Your task to perform on an android device: Go to privacy settings Image 0: 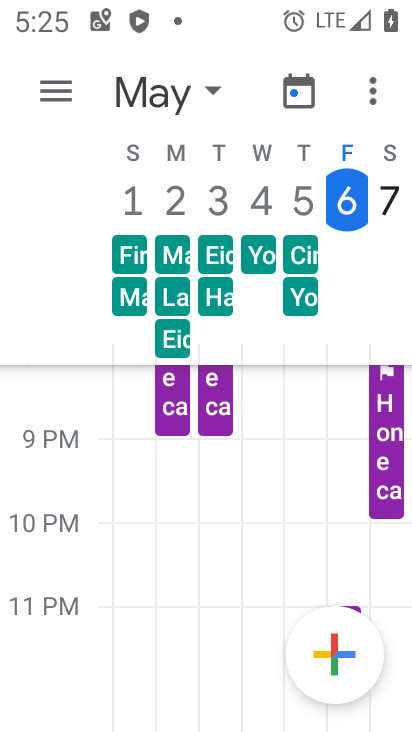
Step 0: press home button
Your task to perform on an android device: Go to privacy settings Image 1: 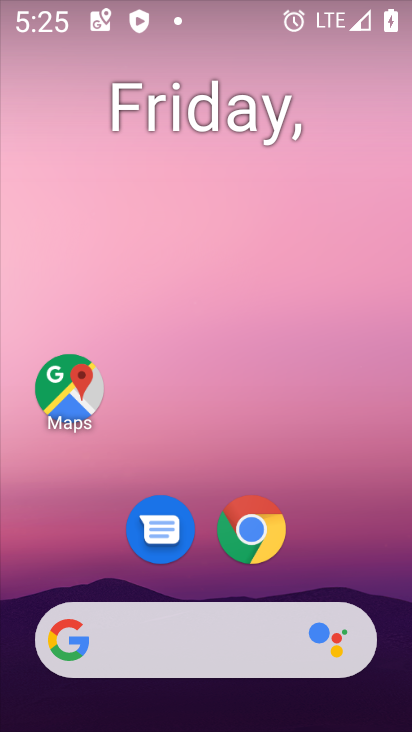
Step 1: drag from (329, 403) to (249, 25)
Your task to perform on an android device: Go to privacy settings Image 2: 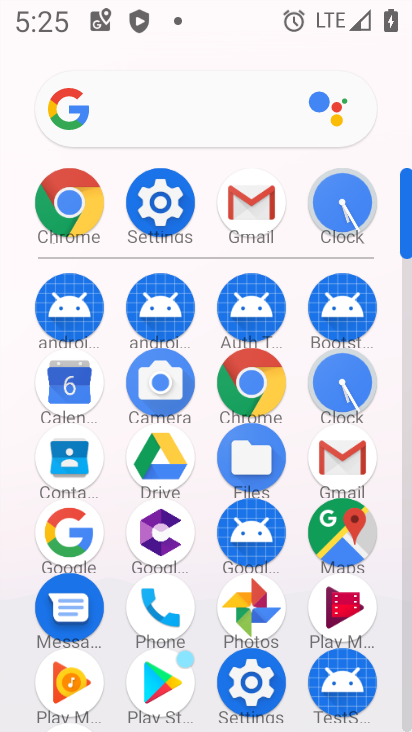
Step 2: click (145, 212)
Your task to perform on an android device: Go to privacy settings Image 3: 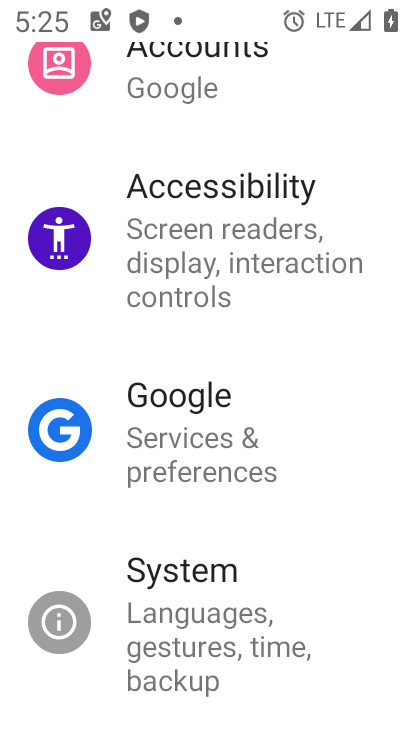
Step 3: drag from (240, 142) to (202, 640)
Your task to perform on an android device: Go to privacy settings Image 4: 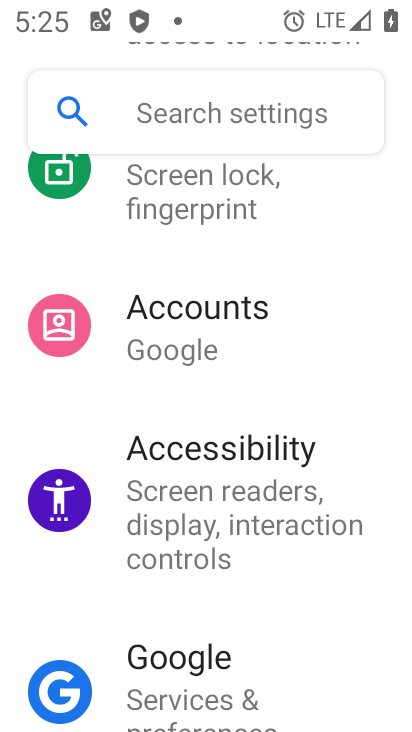
Step 4: drag from (235, 185) to (207, 662)
Your task to perform on an android device: Go to privacy settings Image 5: 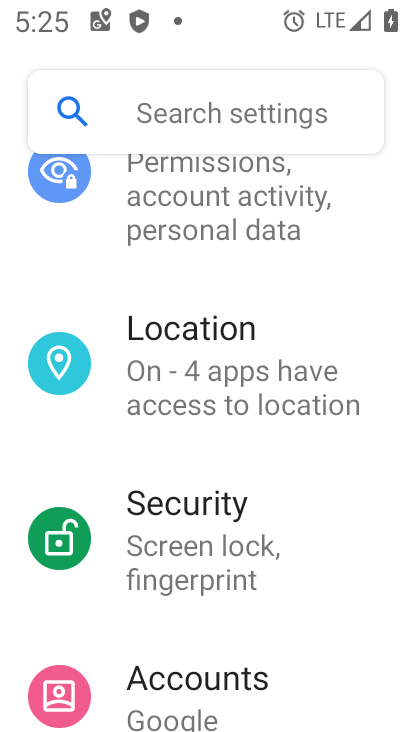
Step 5: drag from (234, 277) to (209, 664)
Your task to perform on an android device: Go to privacy settings Image 6: 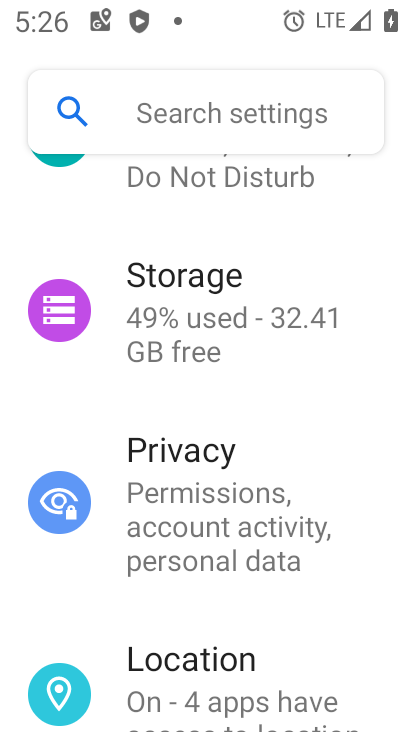
Step 6: click (177, 487)
Your task to perform on an android device: Go to privacy settings Image 7: 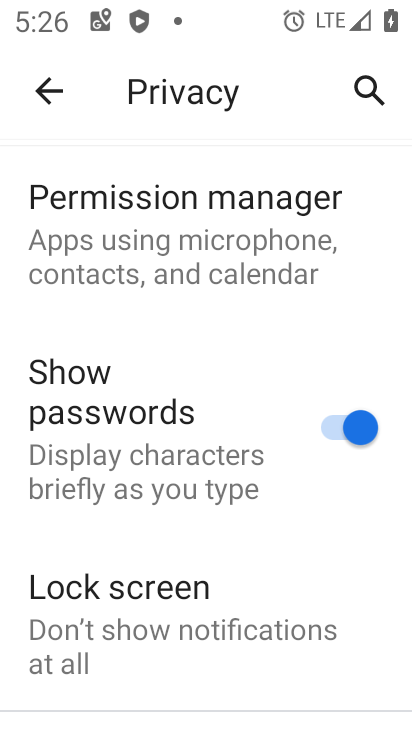
Step 7: task complete